Your task to perform on an android device: find which apps use the phone's location Image 0: 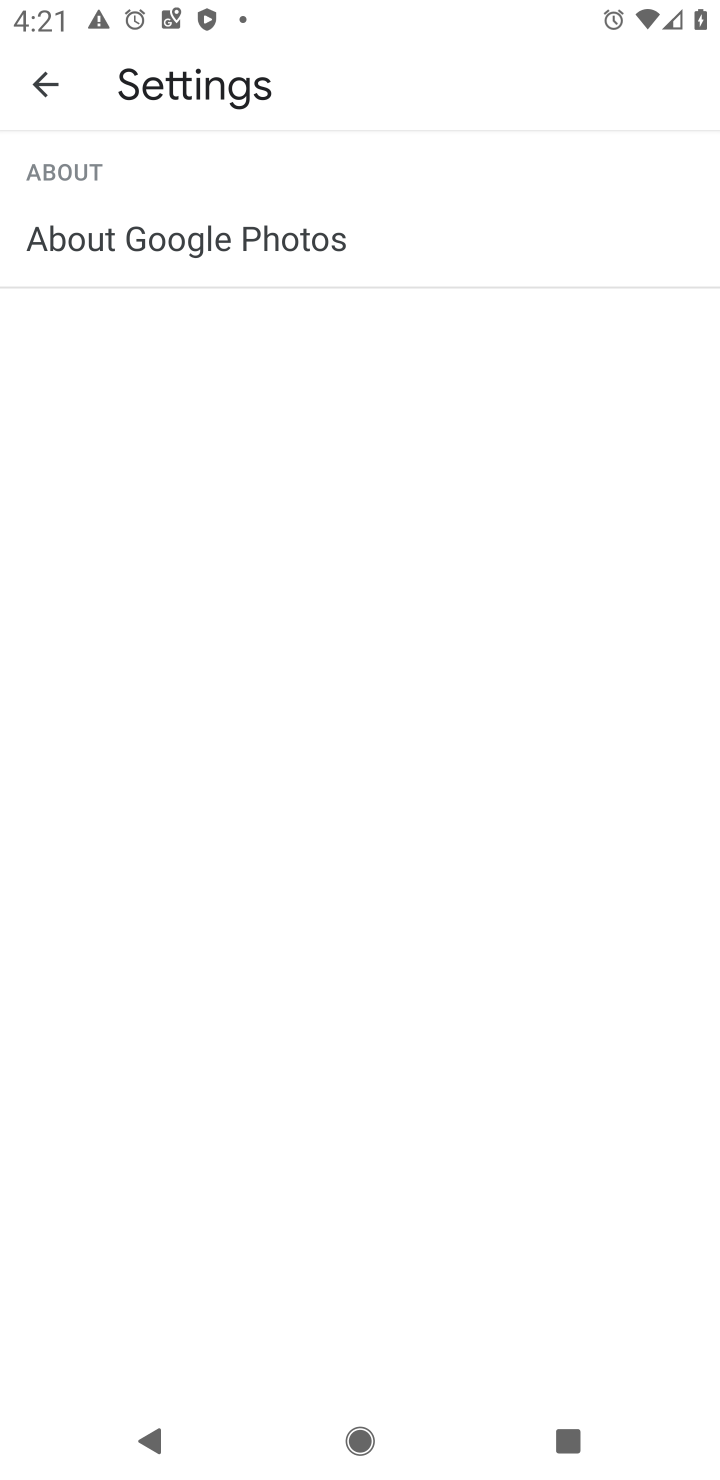
Step 0: press home button
Your task to perform on an android device: find which apps use the phone's location Image 1: 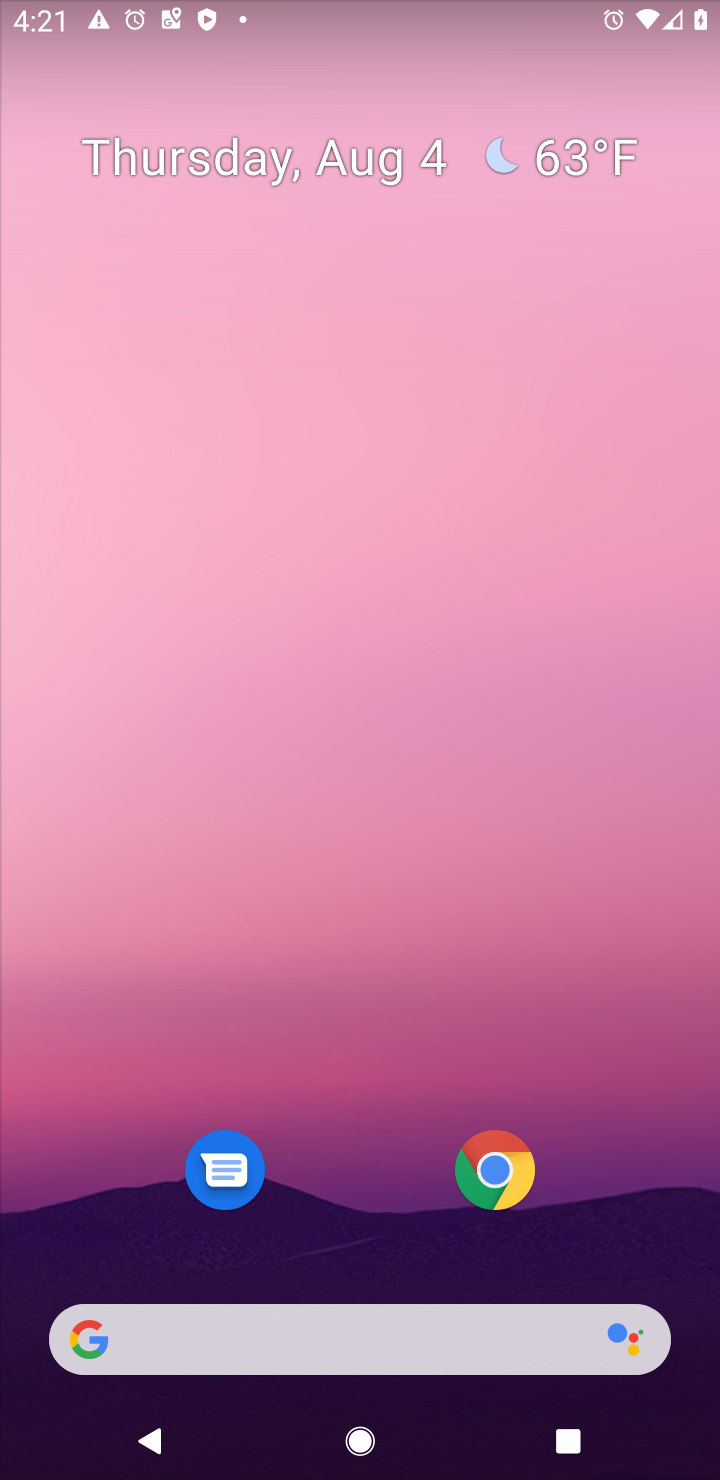
Step 1: drag from (632, 1217) to (537, 273)
Your task to perform on an android device: find which apps use the phone's location Image 2: 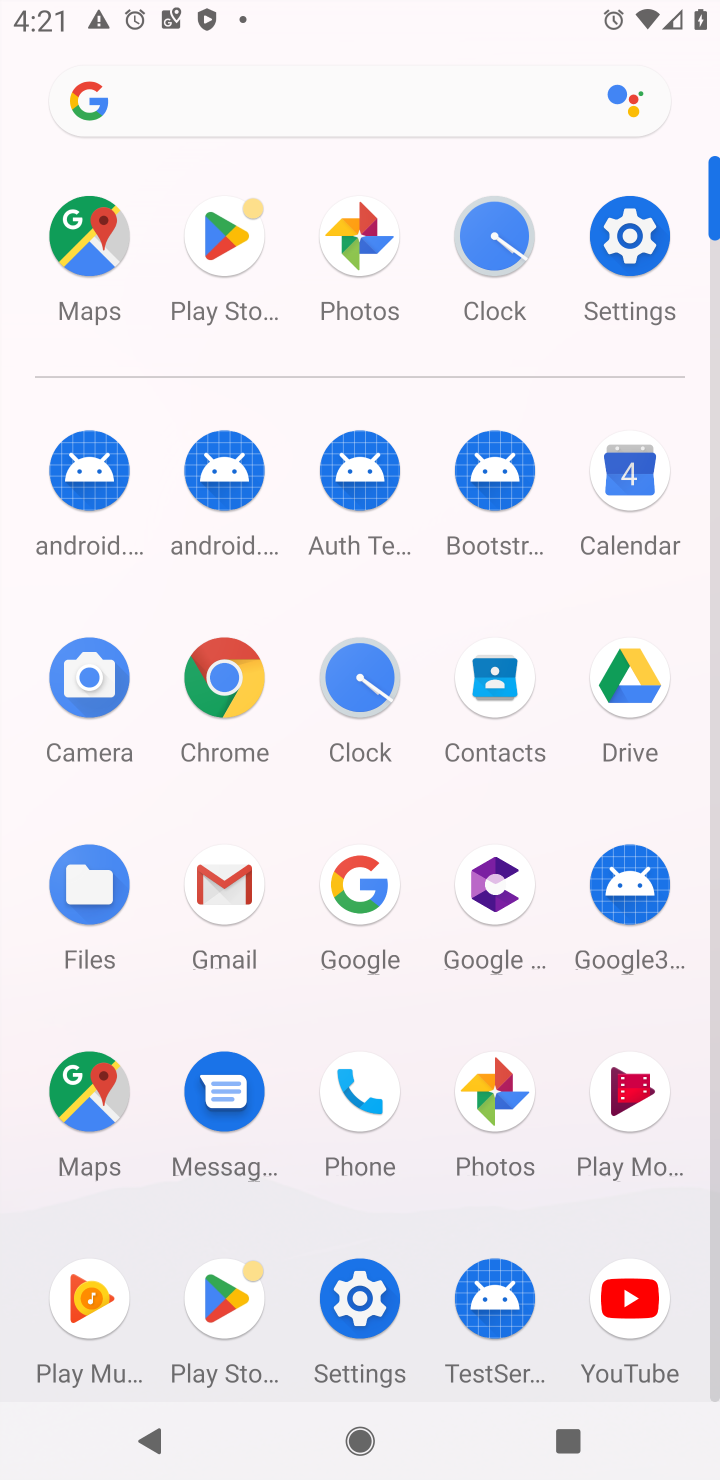
Step 2: click (351, 1297)
Your task to perform on an android device: find which apps use the phone's location Image 3: 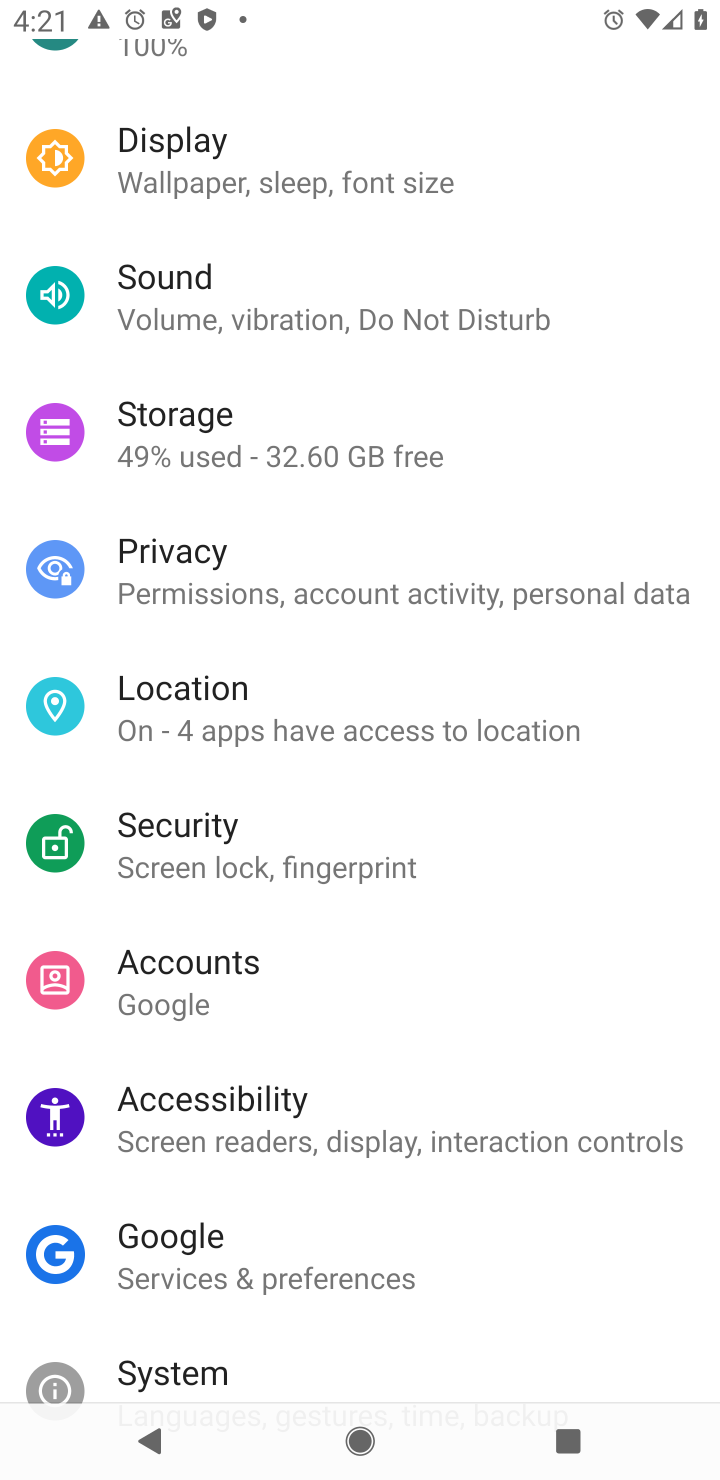
Step 3: click (251, 702)
Your task to perform on an android device: find which apps use the phone's location Image 4: 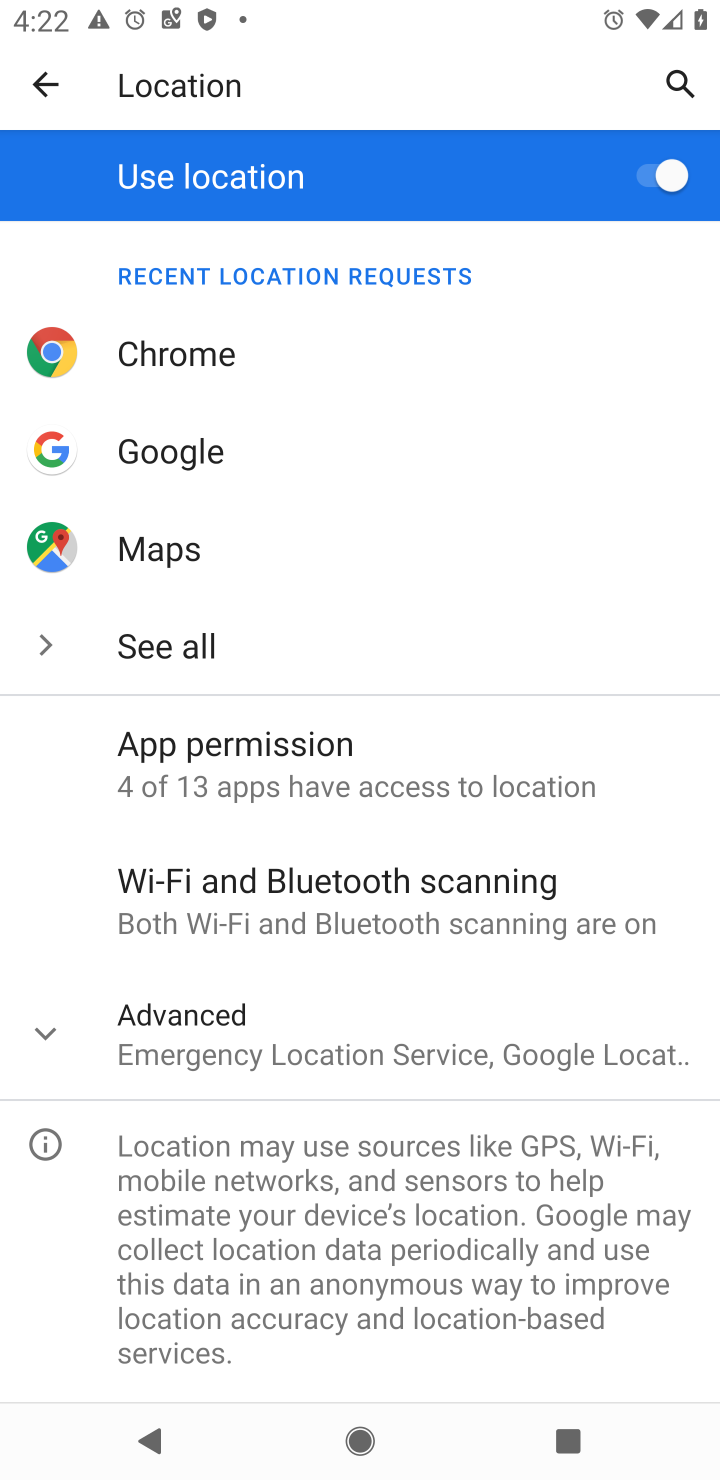
Step 4: click (50, 1022)
Your task to perform on an android device: find which apps use the phone's location Image 5: 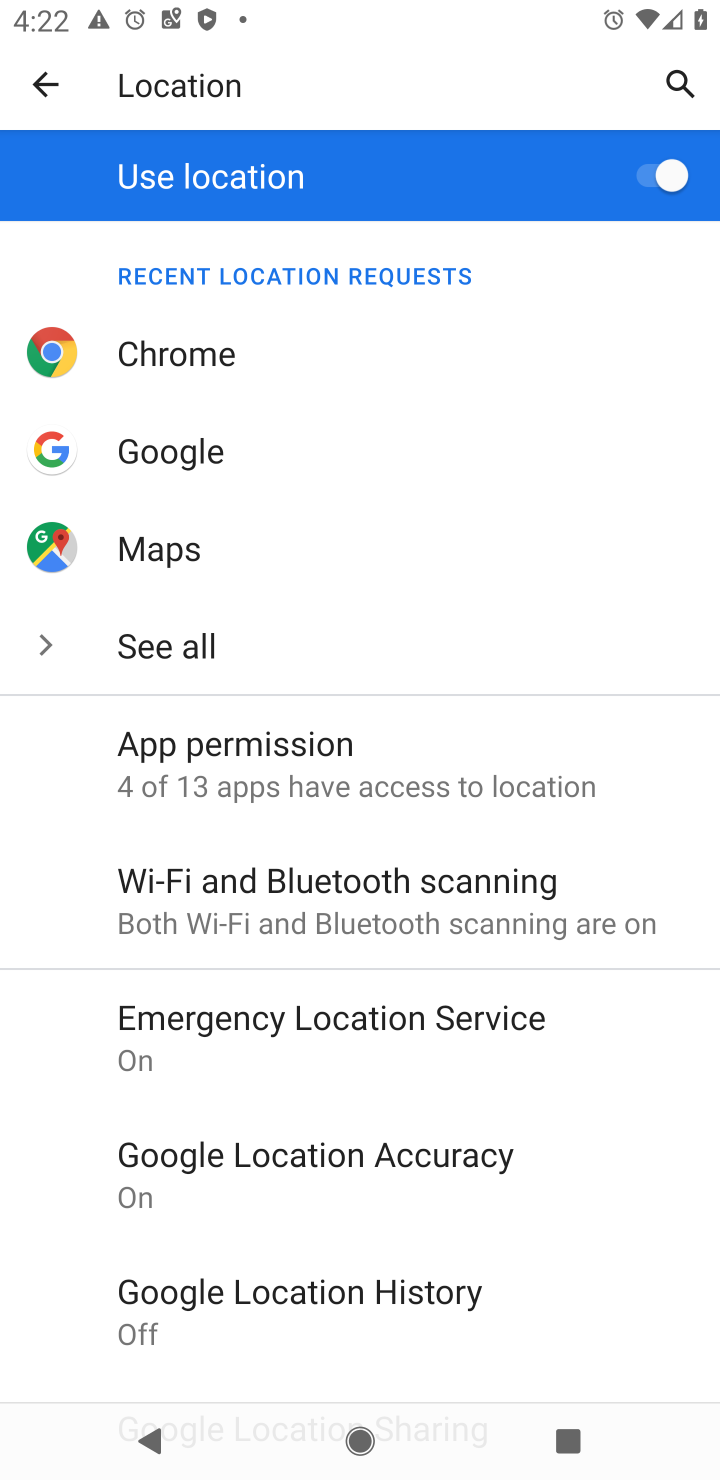
Step 5: click (255, 764)
Your task to perform on an android device: find which apps use the phone's location Image 6: 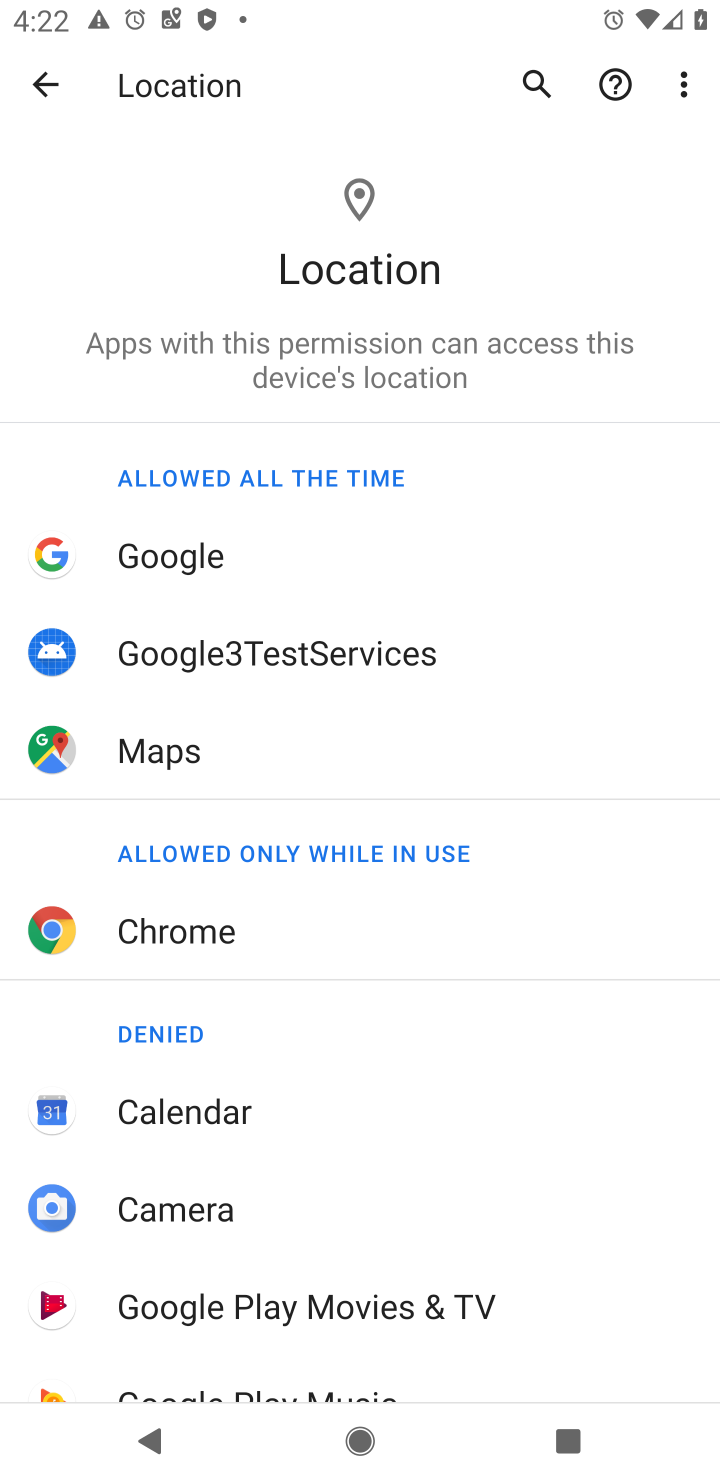
Step 6: task complete